Your task to perform on an android device: change notification settings in the gmail app Image 0: 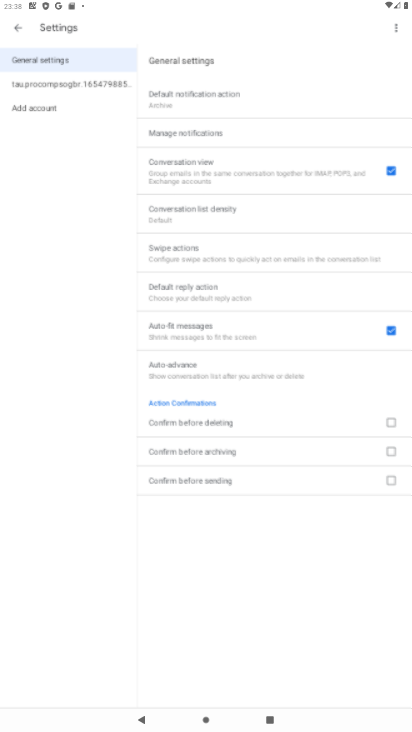
Step 0: drag from (206, 657) to (265, 106)
Your task to perform on an android device: change notification settings in the gmail app Image 1: 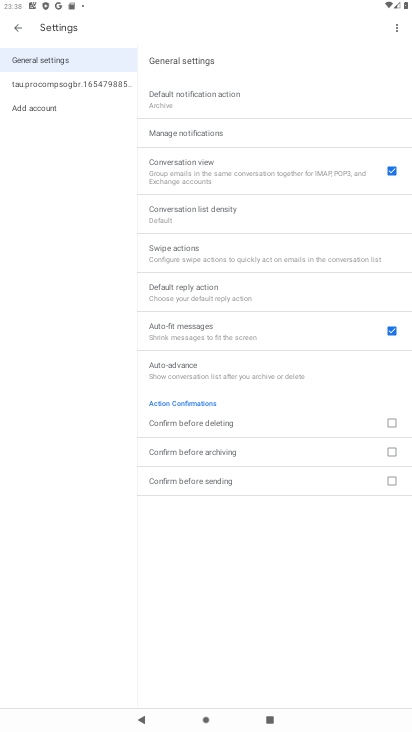
Step 1: press home button
Your task to perform on an android device: change notification settings in the gmail app Image 2: 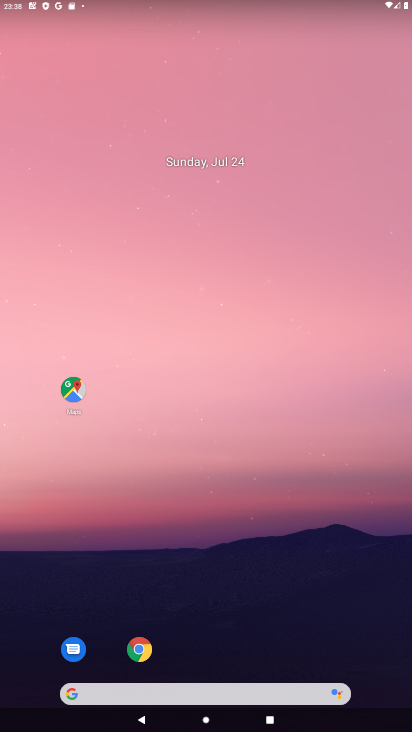
Step 2: drag from (222, 658) to (275, 17)
Your task to perform on an android device: change notification settings in the gmail app Image 3: 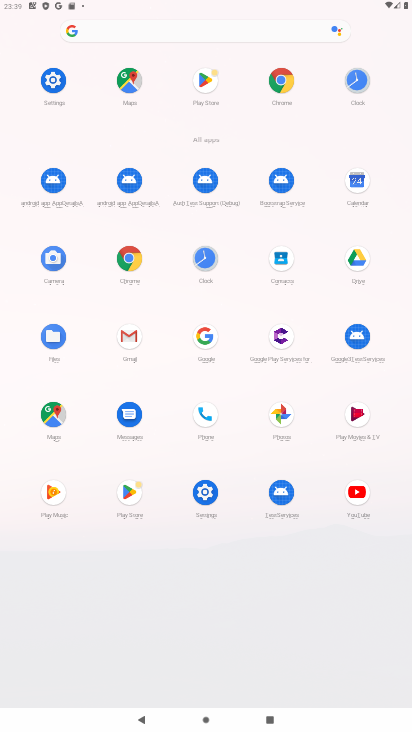
Step 3: click (128, 334)
Your task to perform on an android device: change notification settings in the gmail app Image 4: 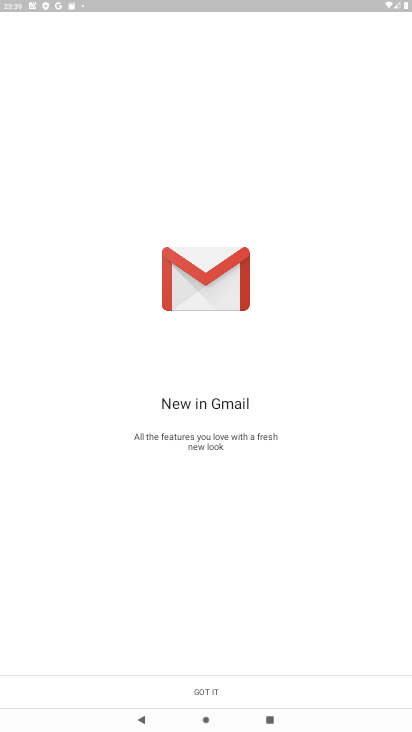
Step 4: click (205, 689)
Your task to perform on an android device: change notification settings in the gmail app Image 5: 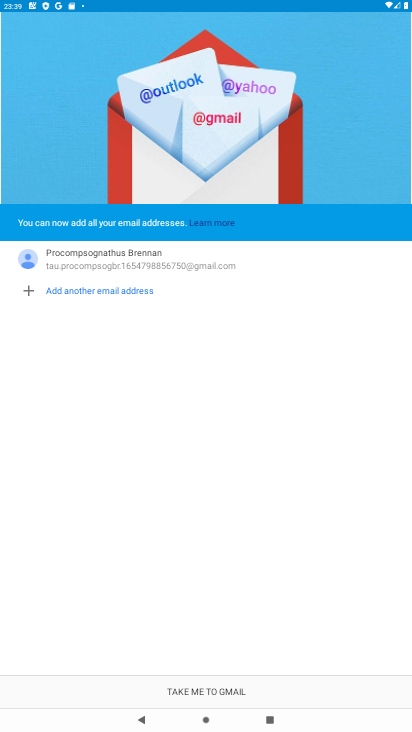
Step 5: click (202, 689)
Your task to perform on an android device: change notification settings in the gmail app Image 6: 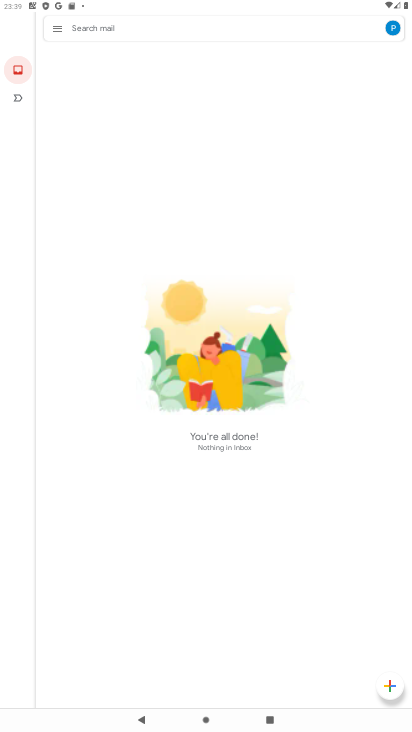
Step 6: click (58, 29)
Your task to perform on an android device: change notification settings in the gmail app Image 7: 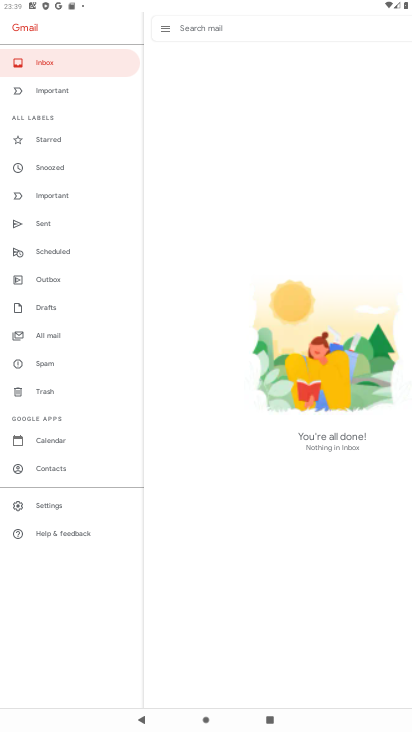
Step 7: click (74, 499)
Your task to perform on an android device: change notification settings in the gmail app Image 8: 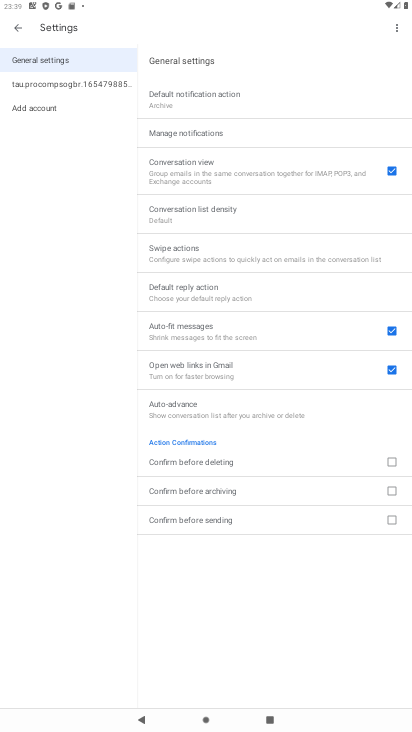
Step 8: click (212, 134)
Your task to perform on an android device: change notification settings in the gmail app Image 9: 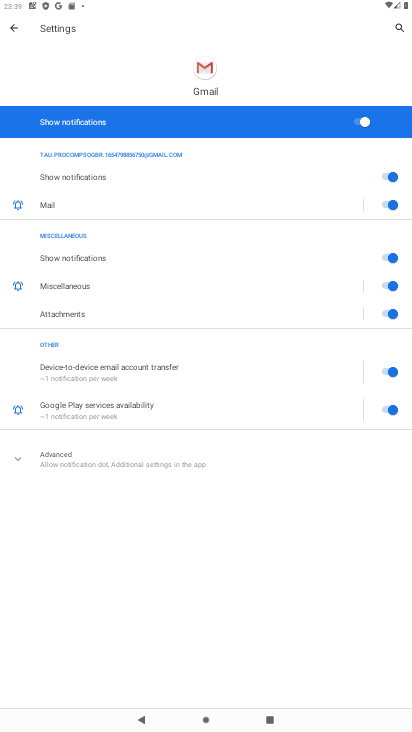
Step 9: click (358, 120)
Your task to perform on an android device: change notification settings in the gmail app Image 10: 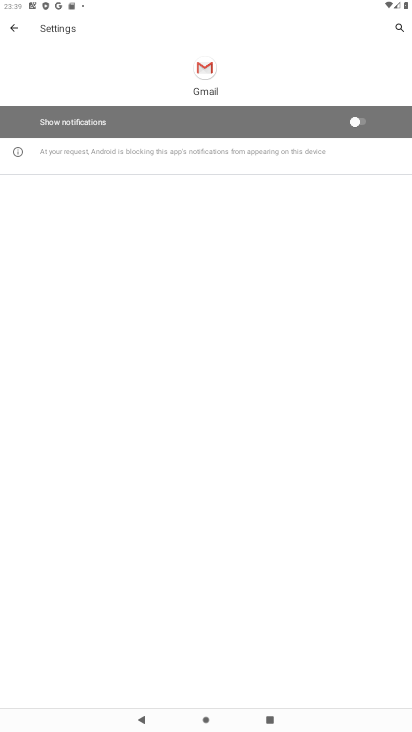
Step 10: task complete